Your task to perform on an android device: turn on improve location accuracy Image 0: 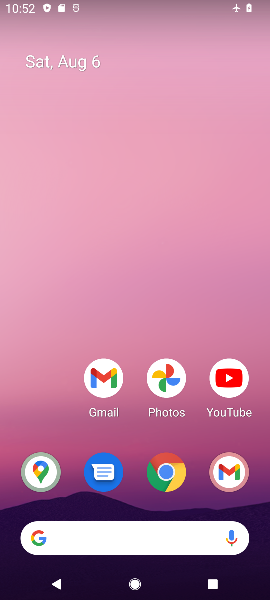
Step 0: click (119, 199)
Your task to perform on an android device: turn on improve location accuracy Image 1: 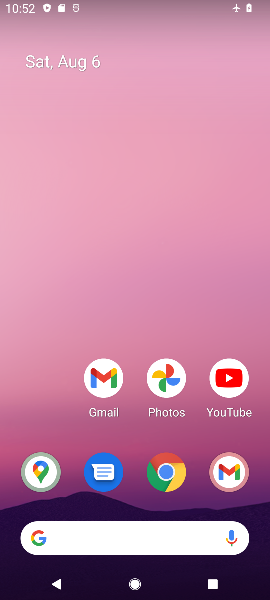
Step 1: drag from (182, 435) to (158, 255)
Your task to perform on an android device: turn on improve location accuracy Image 2: 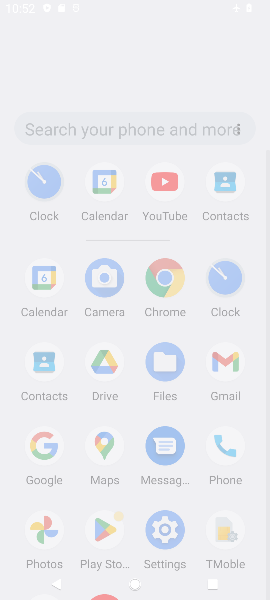
Step 2: drag from (142, 189) to (124, 77)
Your task to perform on an android device: turn on improve location accuracy Image 3: 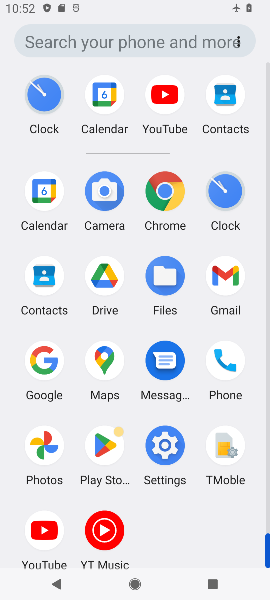
Step 3: click (132, 325)
Your task to perform on an android device: turn on improve location accuracy Image 4: 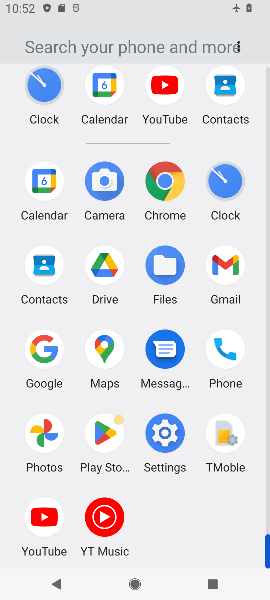
Step 4: click (170, 448)
Your task to perform on an android device: turn on improve location accuracy Image 5: 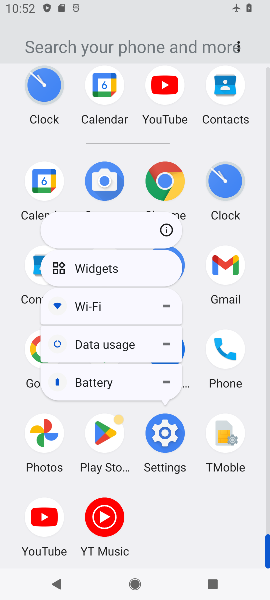
Step 5: click (170, 427)
Your task to perform on an android device: turn on improve location accuracy Image 6: 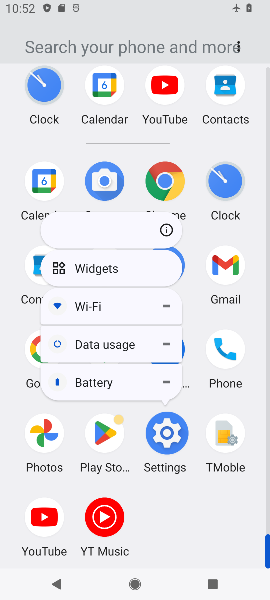
Step 6: click (172, 427)
Your task to perform on an android device: turn on improve location accuracy Image 7: 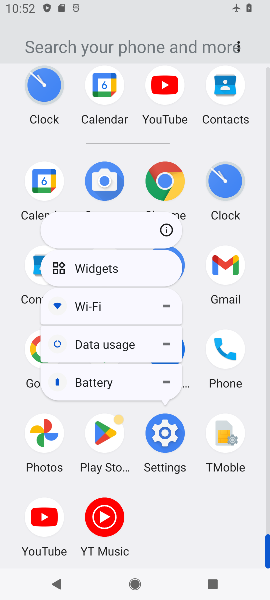
Step 7: click (172, 427)
Your task to perform on an android device: turn on improve location accuracy Image 8: 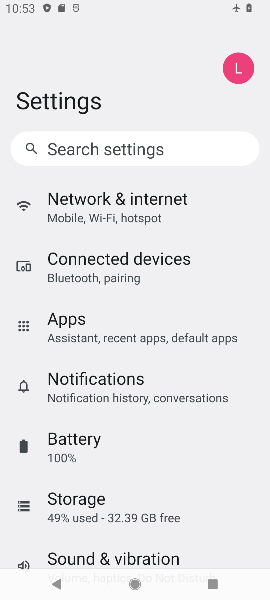
Step 8: press back button
Your task to perform on an android device: turn on improve location accuracy Image 9: 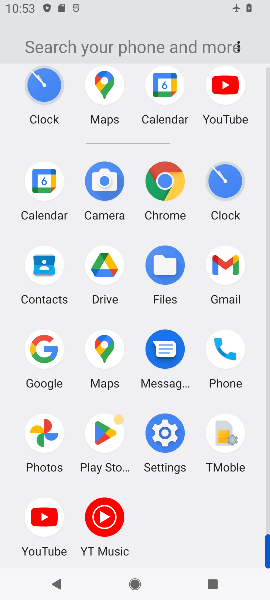
Step 9: click (168, 440)
Your task to perform on an android device: turn on improve location accuracy Image 10: 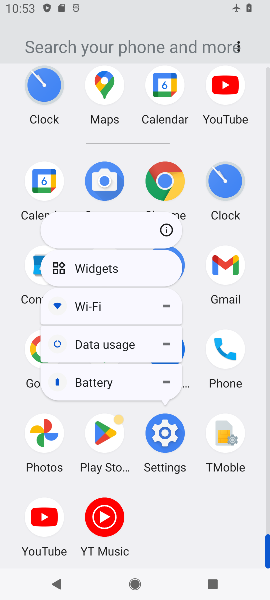
Step 10: click (160, 443)
Your task to perform on an android device: turn on improve location accuracy Image 11: 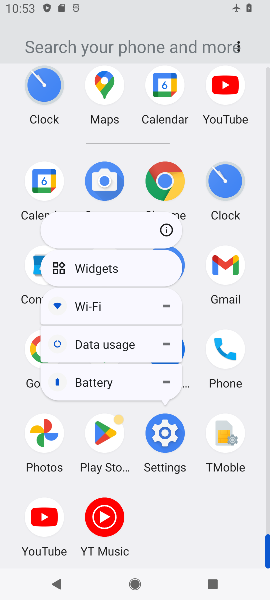
Step 11: click (159, 432)
Your task to perform on an android device: turn on improve location accuracy Image 12: 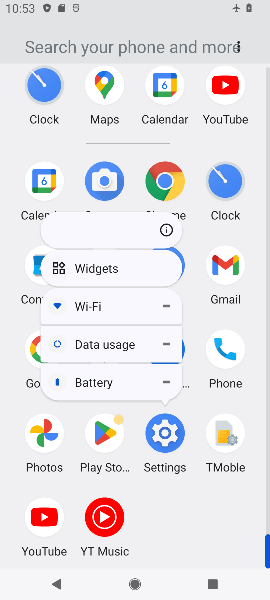
Step 12: click (160, 431)
Your task to perform on an android device: turn on improve location accuracy Image 13: 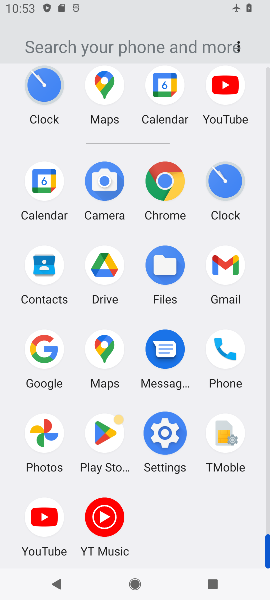
Step 13: click (158, 434)
Your task to perform on an android device: turn on improve location accuracy Image 14: 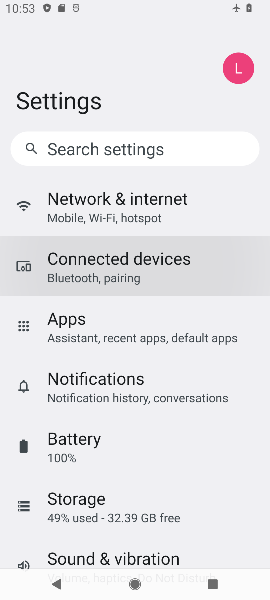
Step 14: click (154, 435)
Your task to perform on an android device: turn on improve location accuracy Image 15: 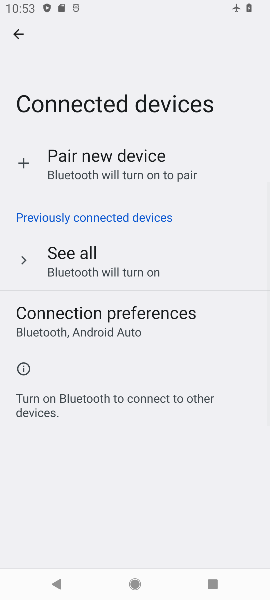
Step 15: click (15, 36)
Your task to perform on an android device: turn on improve location accuracy Image 16: 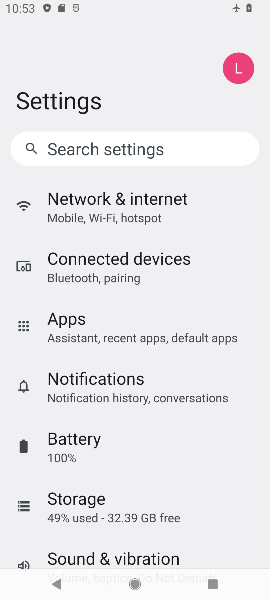
Step 16: drag from (146, 468) to (128, 190)
Your task to perform on an android device: turn on improve location accuracy Image 17: 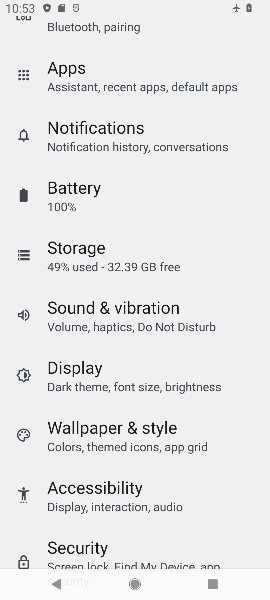
Step 17: drag from (176, 398) to (176, 299)
Your task to perform on an android device: turn on improve location accuracy Image 18: 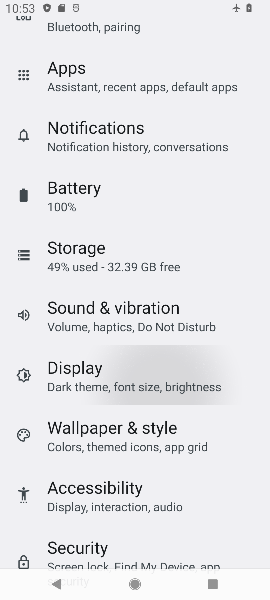
Step 18: drag from (173, 439) to (135, 252)
Your task to perform on an android device: turn on improve location accuracy Image 19: 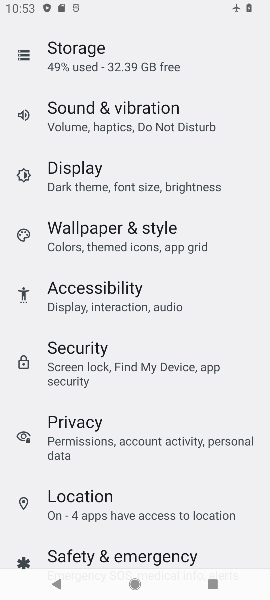
Step 19: click (69, 503)
Your task to perform on an android device: turn on improve location accuracy Image 20: 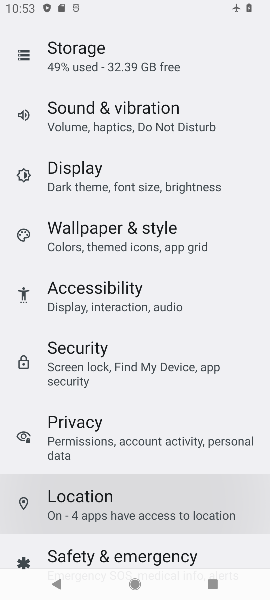
Step 20: click (69, 503)
Your task to perform on an android device: turn on improve location accuracy Image 21: 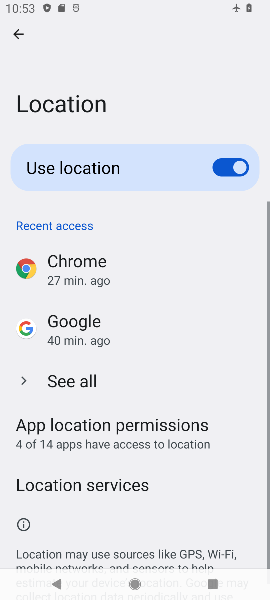
Step 21: drag from (169, 386) to (148, 154)
Your task to perform on an android device: turn on improve location accuracy Image 22: 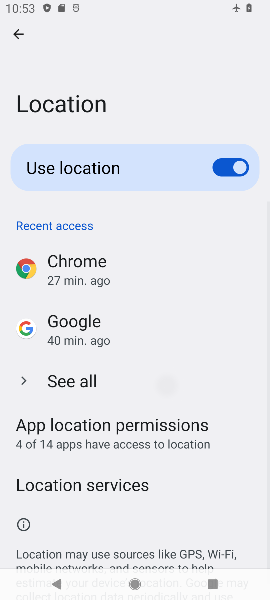
Step 22: drag from (131, 343) to (128, 99)
Your task to perform on an android device: turn on improve location accuracy Image 23: 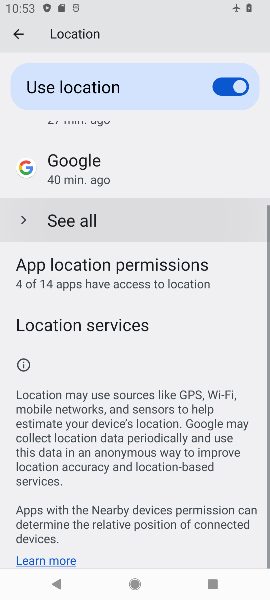
Step 23: drag from (122, 487) to (102, 207)
Your task to perform on an android device: turn on improve location accuracy Image 24: 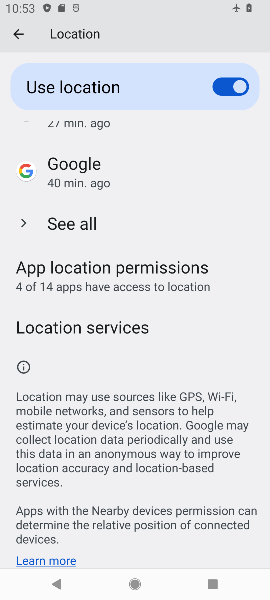
Step 24: click (81, 325)
Your task to perform on an android device: turn on improve location accuracy Image 25: 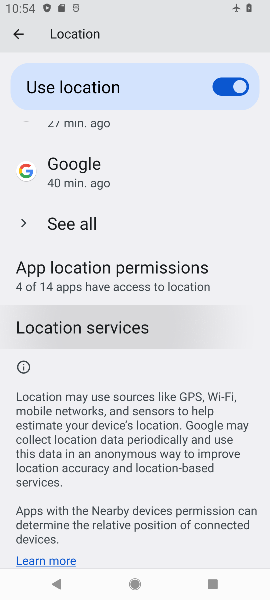
Step 25: click (81, 327)
Your task to perform on an android device: turn on improve location accuracy Image 26: 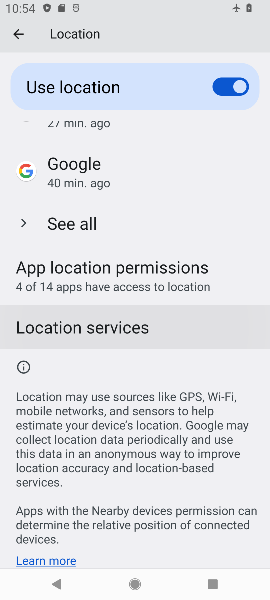
Step 26: click (81, 327)
Your task to perform on an android device: turn on improve location accuracy Image 27: 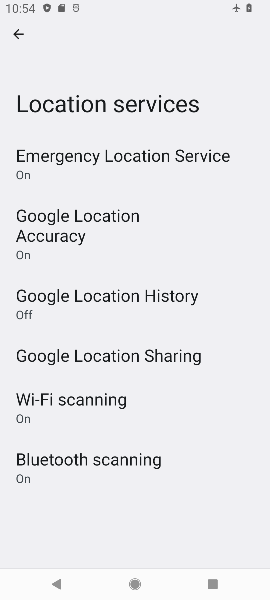
Step 27: click (72, 213)
Your task to perform on an android device: turn on improve location accuracy Image 28: 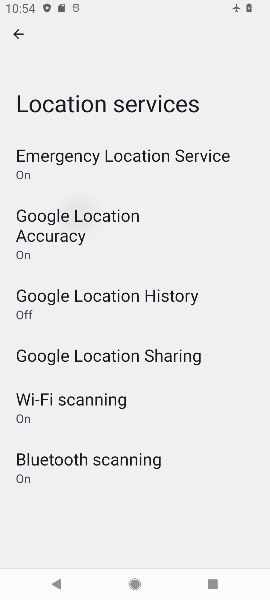
Step 28: task complete